Your task to perform on an android device: Open the calendar app, open the side menu, and click the "Day" option Image 0: 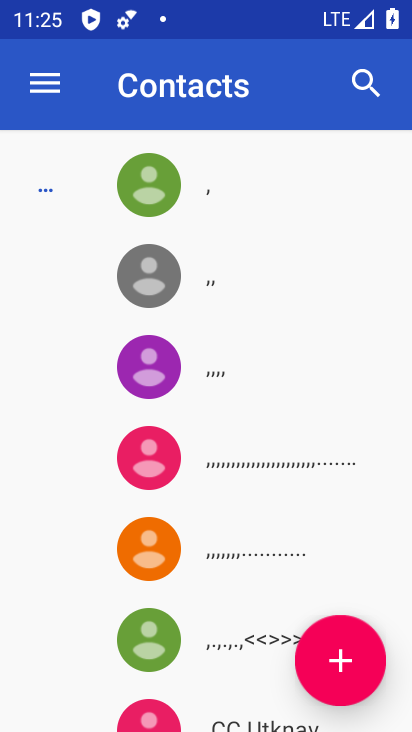
Step 0: press home button
Your task to perform on an android device: Open the calendar app, open the side menu, and click the "Day" option Image 1: 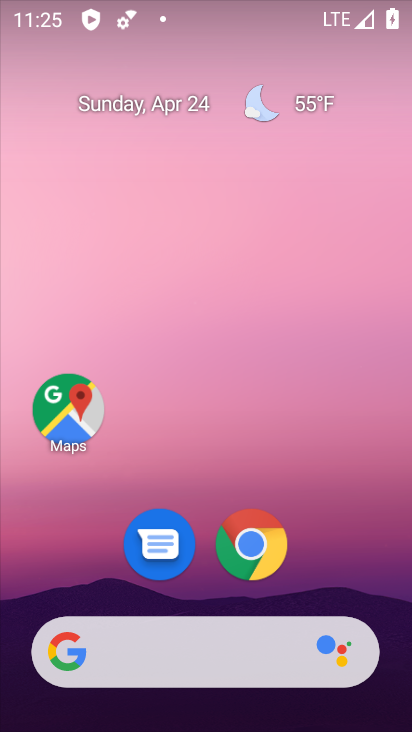
Step 1: drag from (316, 463) to (196, 43)
Your task to perform on an android device: Open the calendar app, open the side menu, and click the "Day" option Image 2: 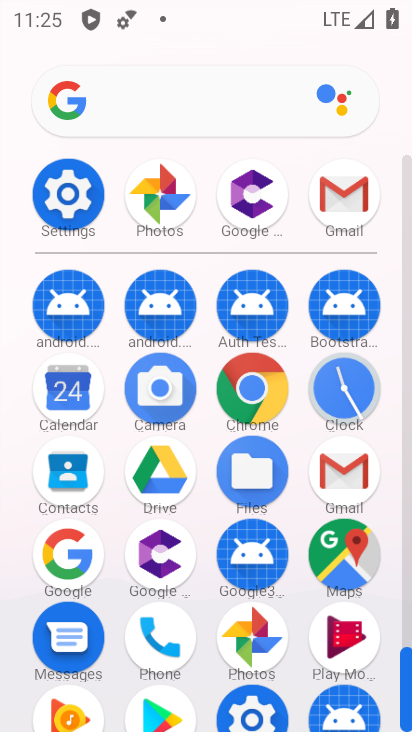
Step 2: click (58, 384)
Your task to perform on an android device: Open the calendar app, open the side menu, and click the "Day" option Image 3: 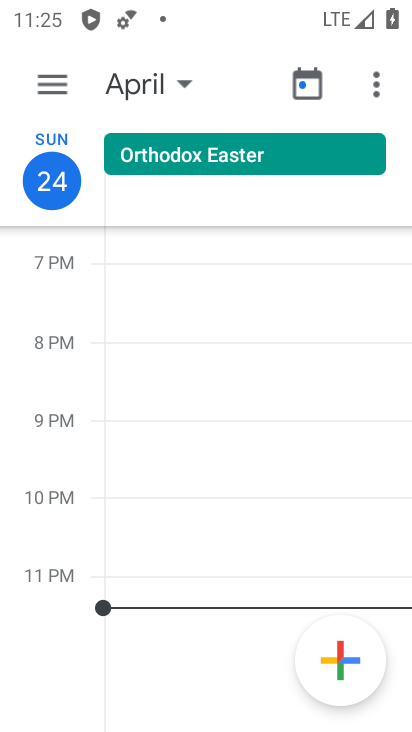
Step 3: click (58, 84)
Your task to perform on an android device: Open the calendar app, open the side menu, and click the "Day" option Image 4: 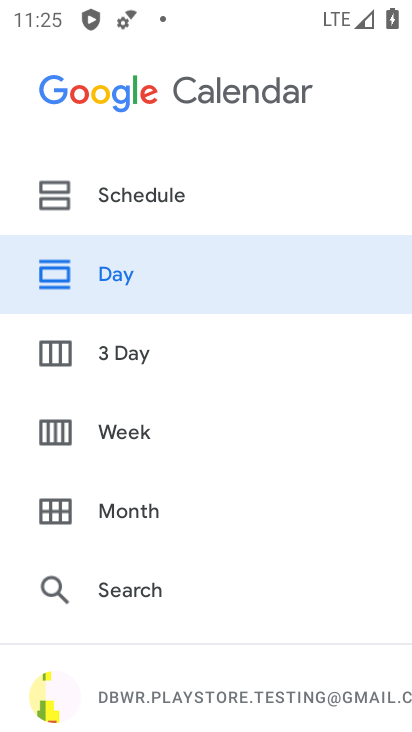
Step 4: click (115, 272)
Your task to perform on an android device: Open the calendar app, open the side menu, and click the "Day" option Image 5: 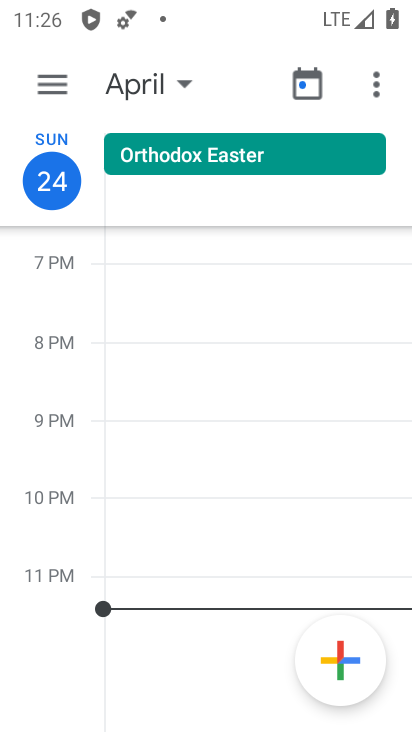
Step 5: task complete